Your task to perform on an android device: Show me popular videos on Youtube Image 0: 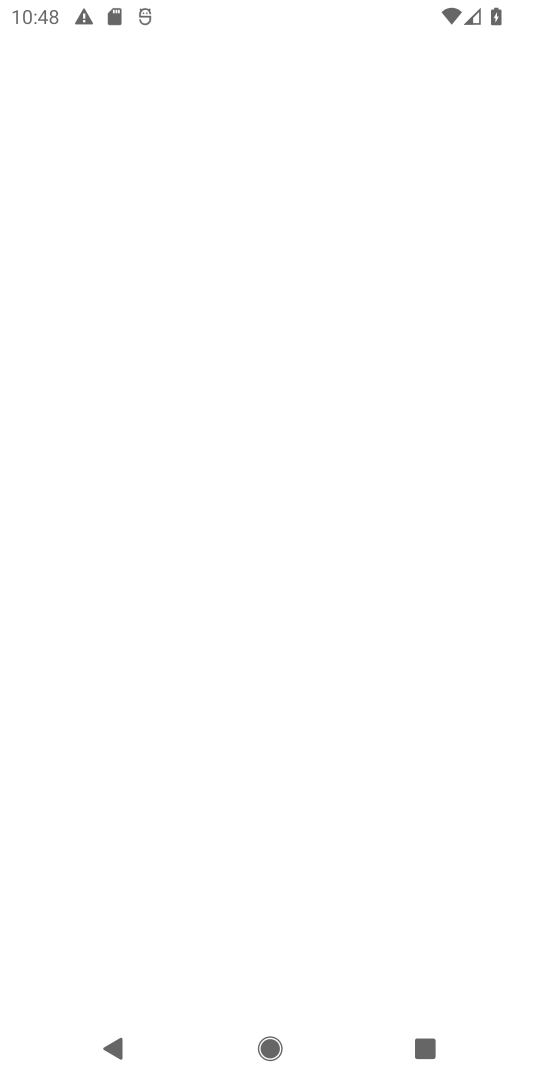
Step 0: press home button
Your task to perform on an android device: Show me popular videos on Youtube Image 1: 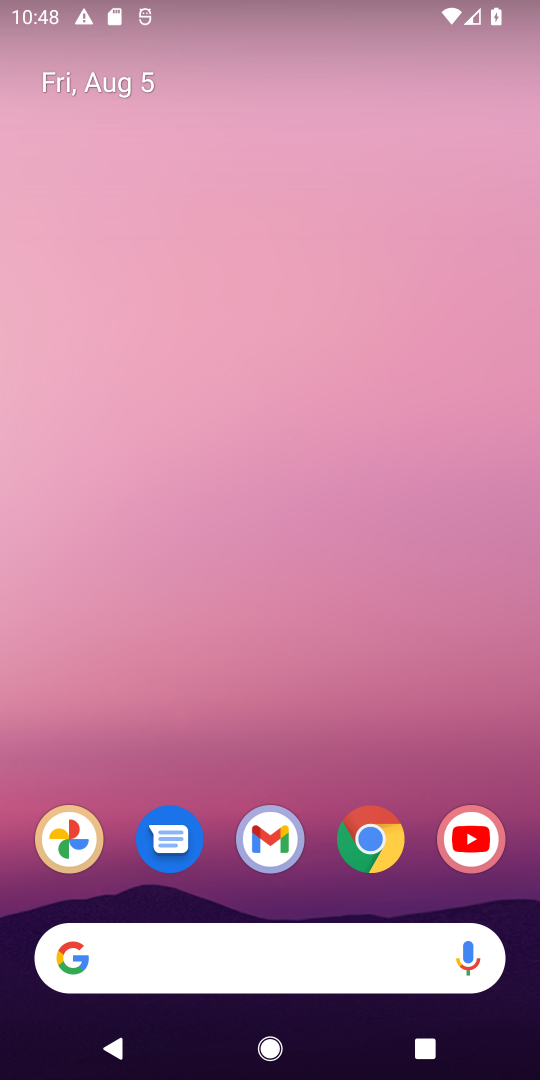
Step 1: click (477, 823)
Your task to perform on an android device: Show me popular videos on Youtube Image 2: 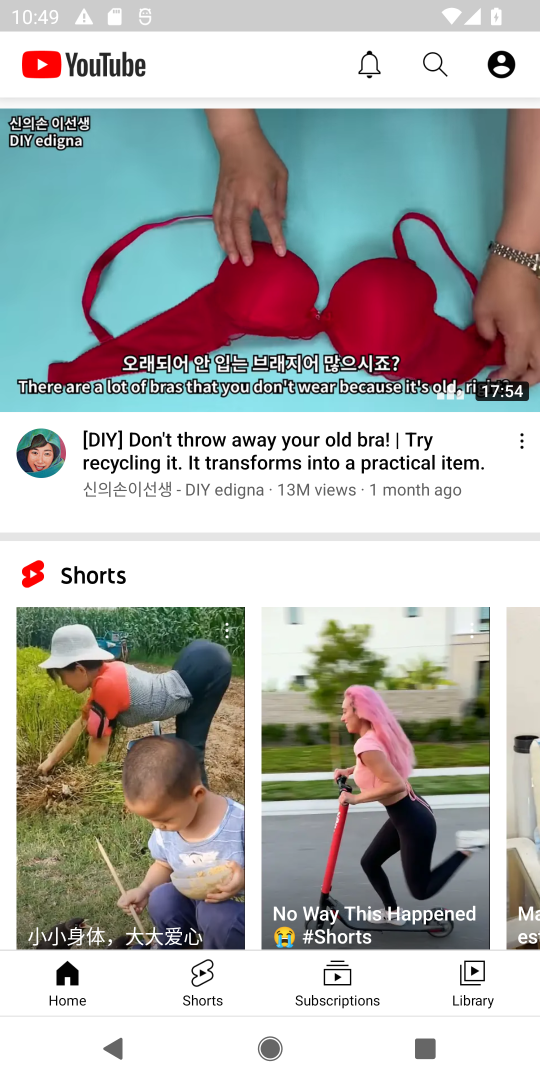
Step 2: drag from (72, 158) to (102, 646)
Your task to perform on an android device: Show me popular videos on Youtube Image 3: 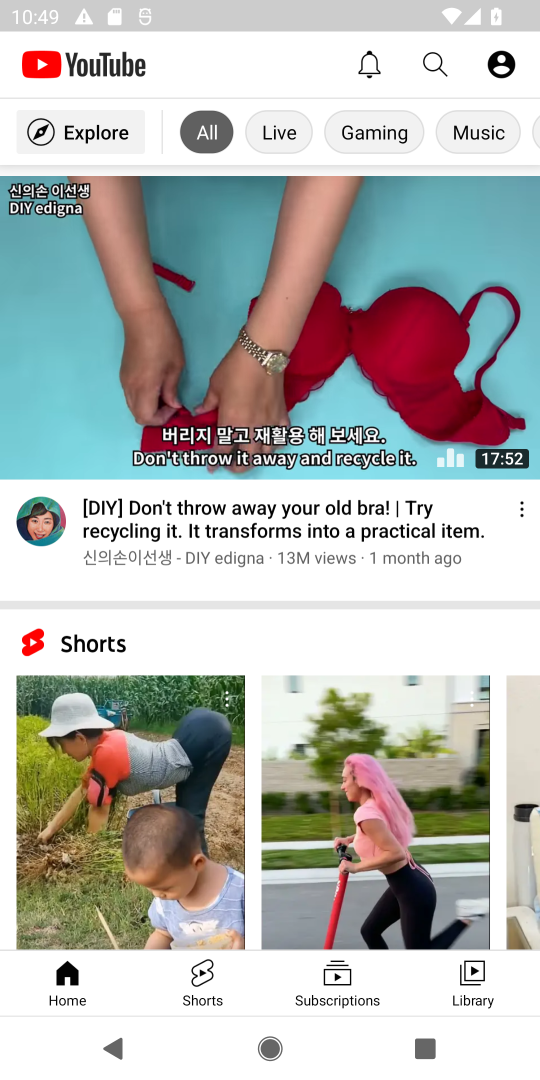
Step 3: click (63, 126)
Your task to perform on an android device: Show me popular videos on Youtube Image 4: 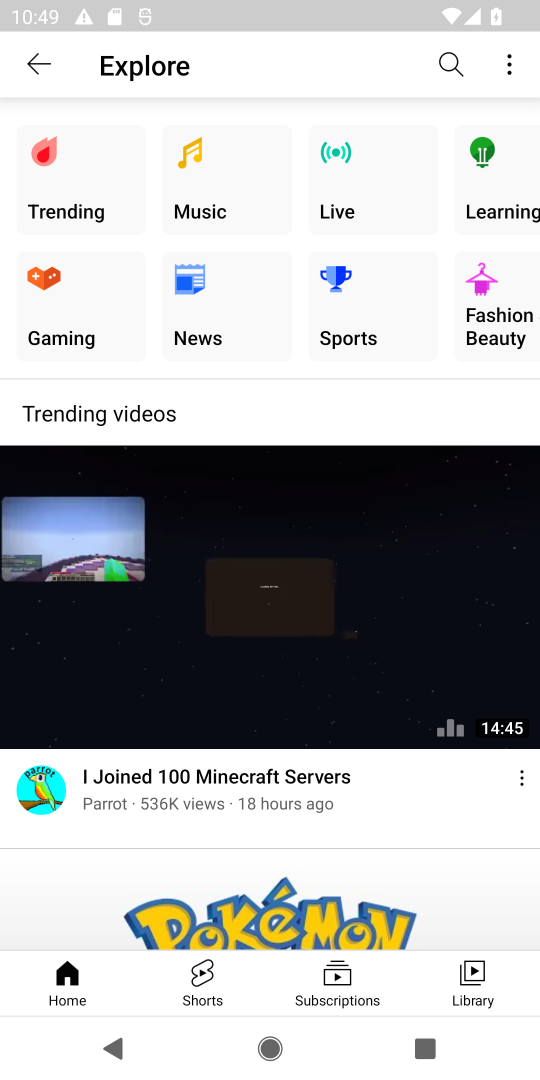
Step 4: click (16, 148)
Your task to perform on an android device: Show me popular videos on Youtube Image 5: 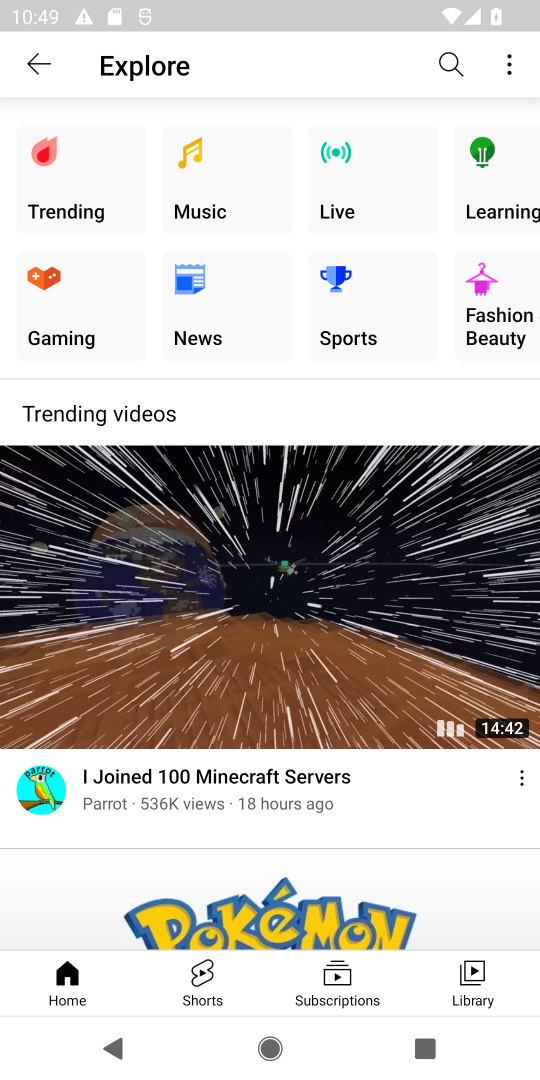
Step 5: click (69, 167)
Your task to perform on an android device: Show me popular videos on Youtube Image 6: 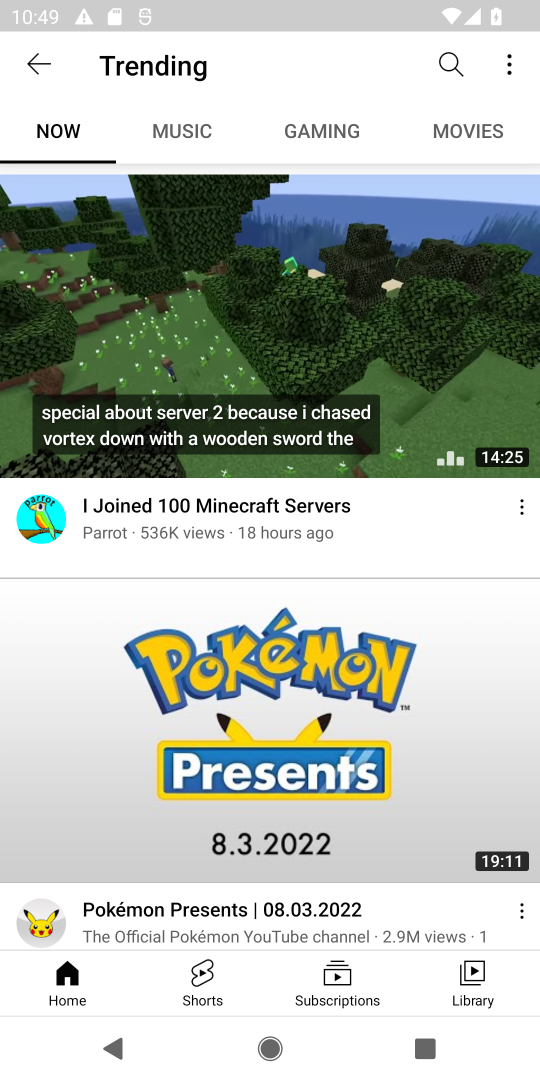
Step 6: task complete